Your task to perform on an android device: Open Reddit.com Image 0: 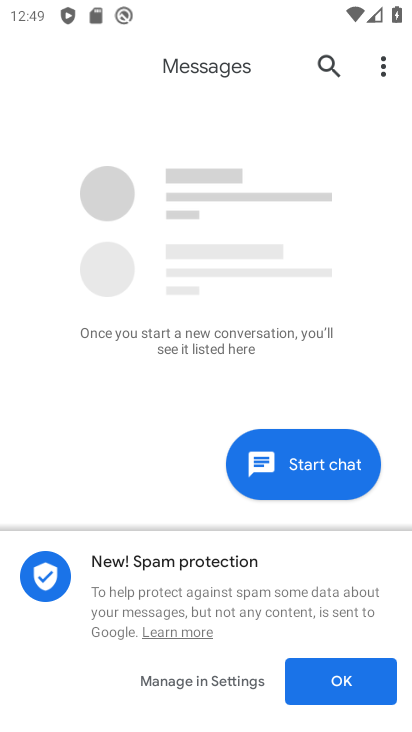
Step 0: press home button
Your task to perform on an android device: Open Reddit.com Image 1: 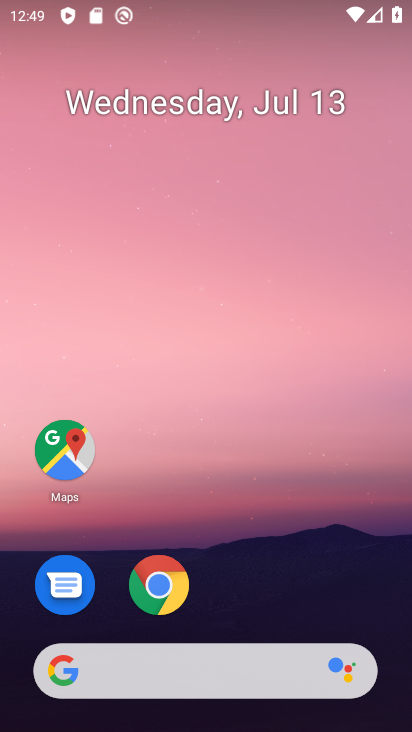
Step 1: click (162, 583)
Your task to perform on an android device: Open Reddit.com Image 2: 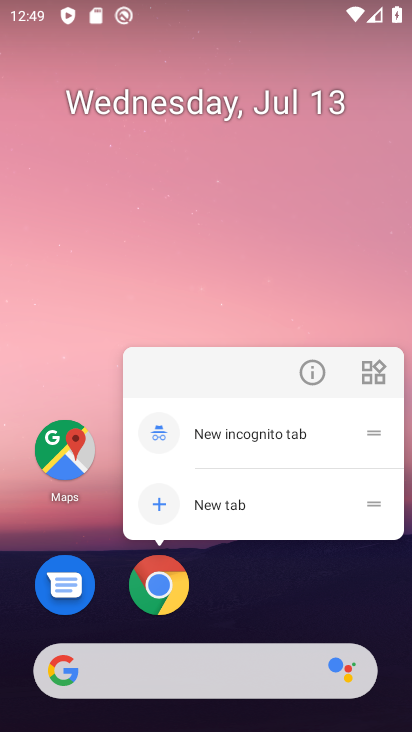
Step 2: click (162, 582)
Your task to perform on an android device: Open Reddit.com Image 3: 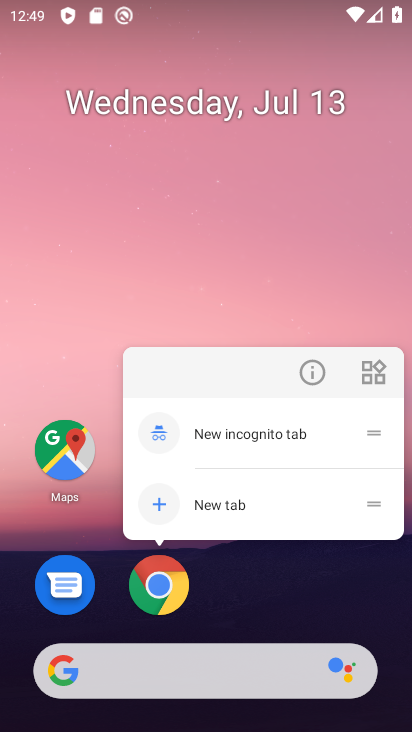
Step 3: click (146, 596)
Your task to perform on an android device: Open Reddit.com Image 4: 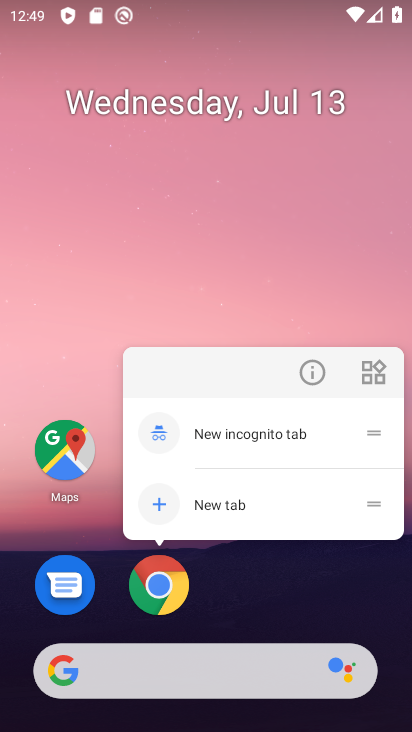
Step 4: click (144, 598)
Your task to perform on an android device: Open Reddit.com Image 5: 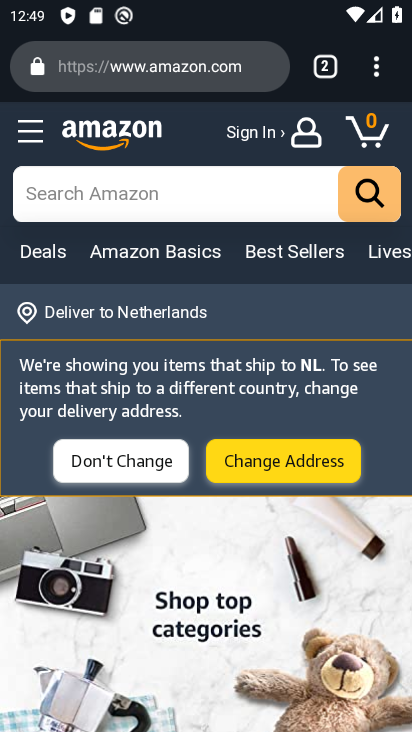
Step 5: drag from (378, 72) to (183, 128)
Your task to perform on an android device: Open Reddit.com Image 6: 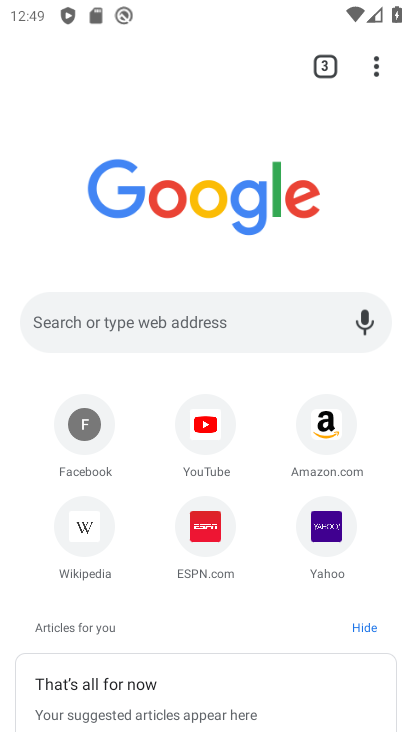
Step 6: click (191, 303)
Your task to perform on an android device: Open Reddit.com Image 7: 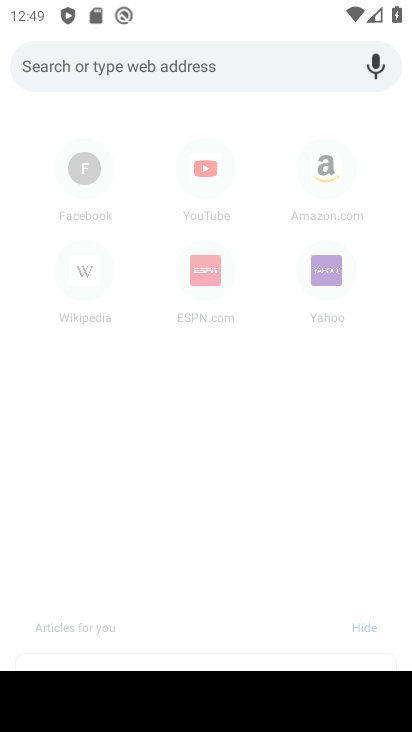
Step 7: type "reddit.com"
Your task to perform on an android device: Open Reddit.com Image 8: 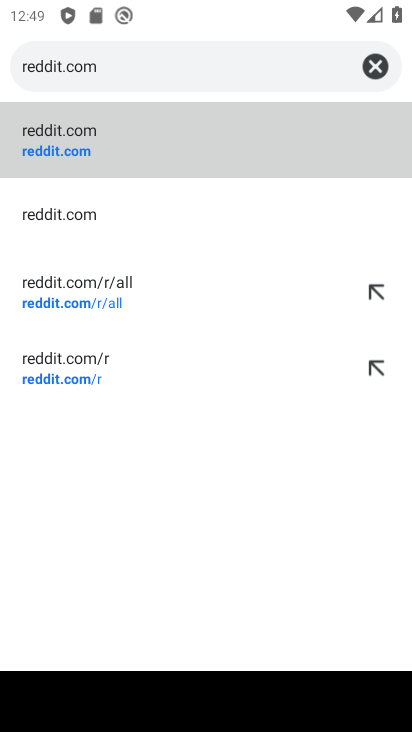
Step 8: click (93, 152)
Your task to perform on an android device: Open Reddit.com Image 9: 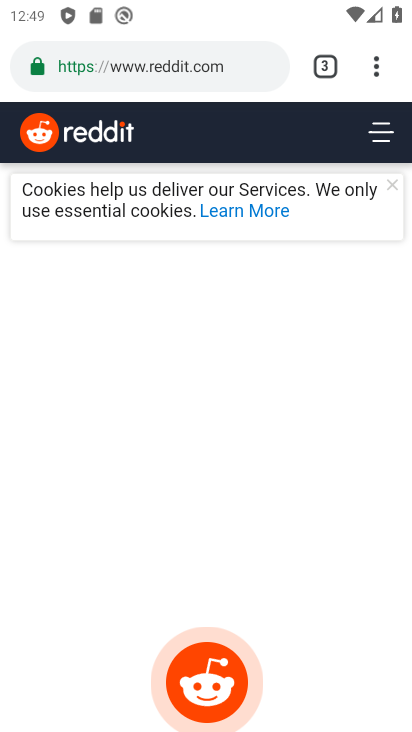
Step 9: task complete